Your task to perform on an android device: stop showing notifications on the lock screen Image 0: 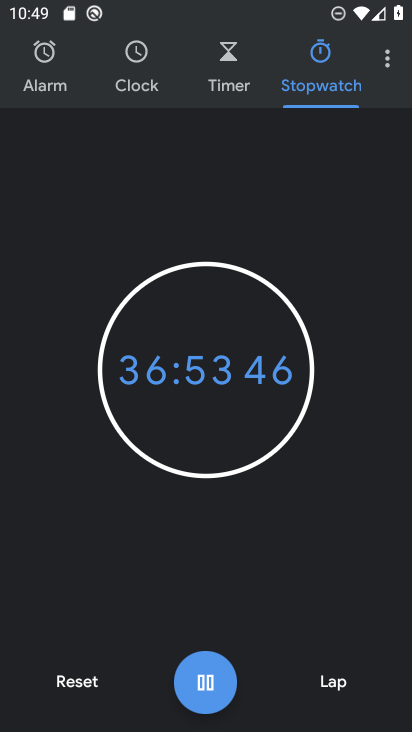
Step 0: press home button
Your task to perform on an android device: stop showing notifications on the lock screen Image 1: 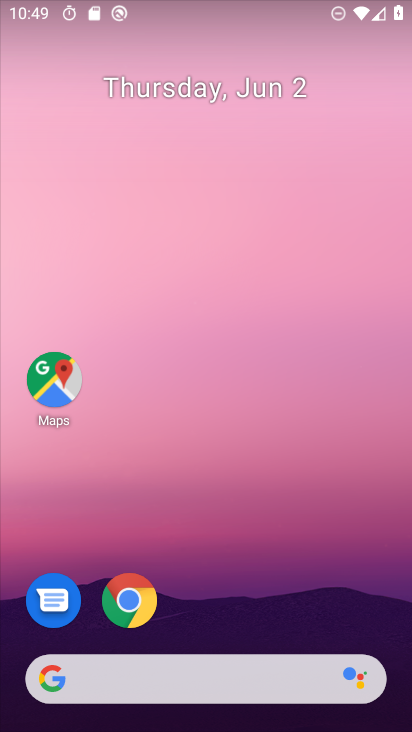
Step 1: drag from (240, 591) to (234, 68)
Your task to perform on an android device: stop showing notifications on the lock screen Image 2: 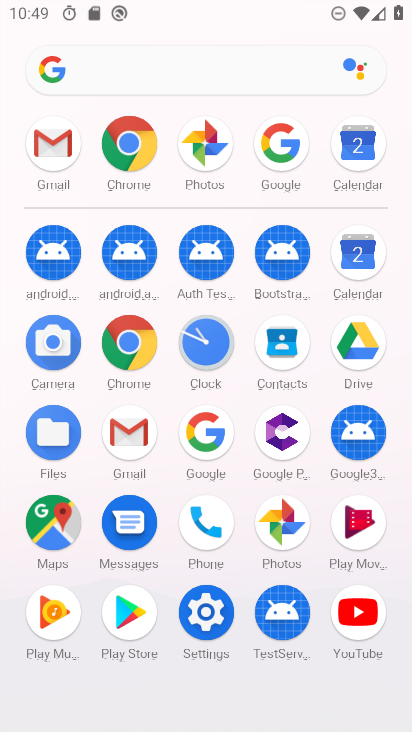
Step 2: click (205, 609)
Your task to perform on an android device: stop showing notifications on the lock screen Image 3: 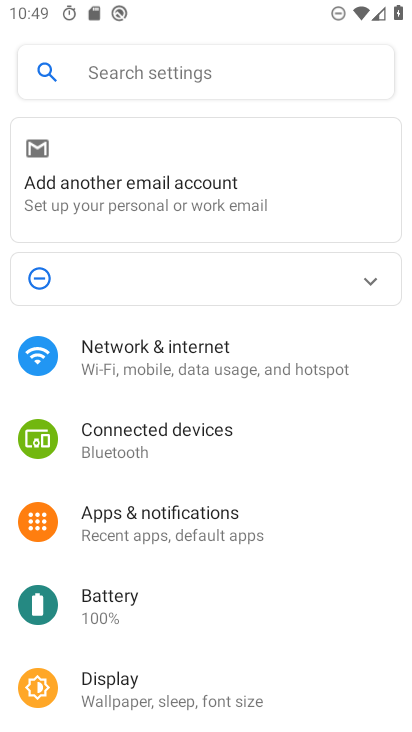
Step 3: click (180, 527)
Your task to perform on an android device: stop showing notifications on the lock screen Image 4: 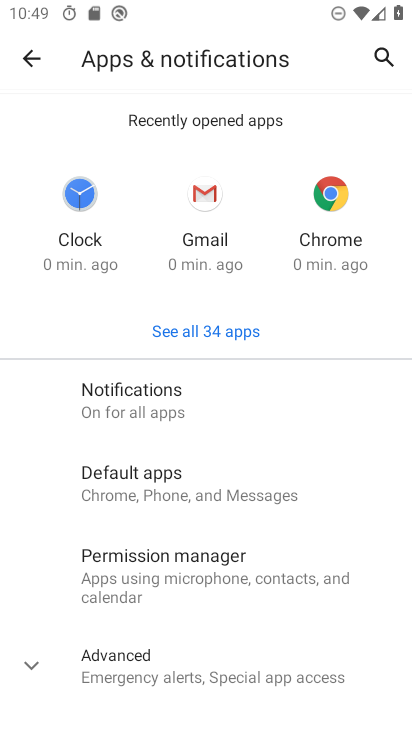
Step 4: click (175, 406)
Your task to perform on an android device: stop showing notifications on the lock screen Image 5: 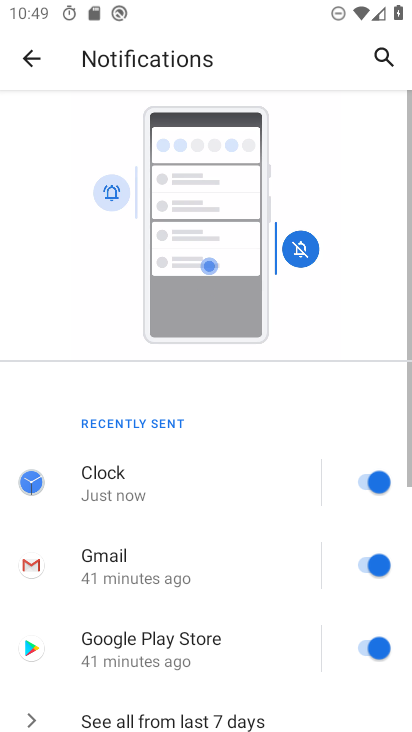
Step 5: drag from (227, 640) to (208, 121)
Your task to perform on an android device: stop showing notifications on the lock screen Image 6: 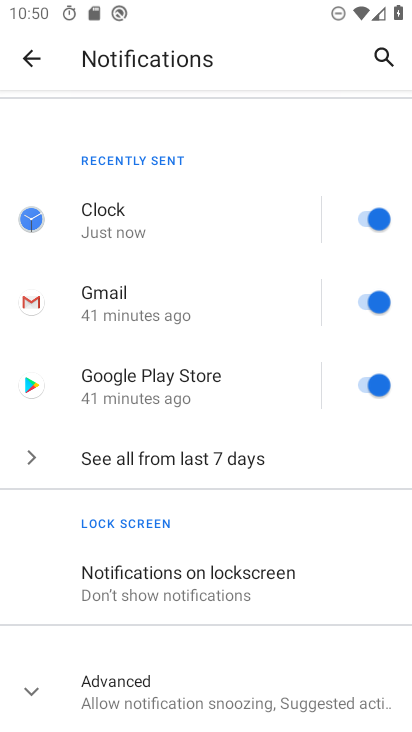
Step 6: click (122, 681)
Your task to perform on an android device: stop showing notifications on the lock screen Image 7: 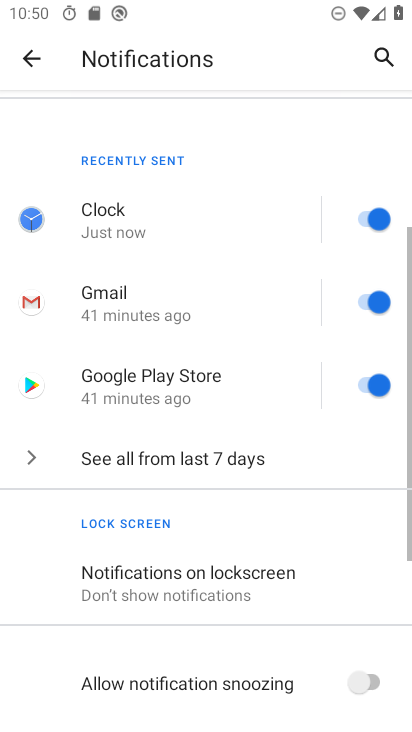
Step 7: click (168, 587)
Your task to perform on an android device: stop showing notifications on the lock screen Image 8: 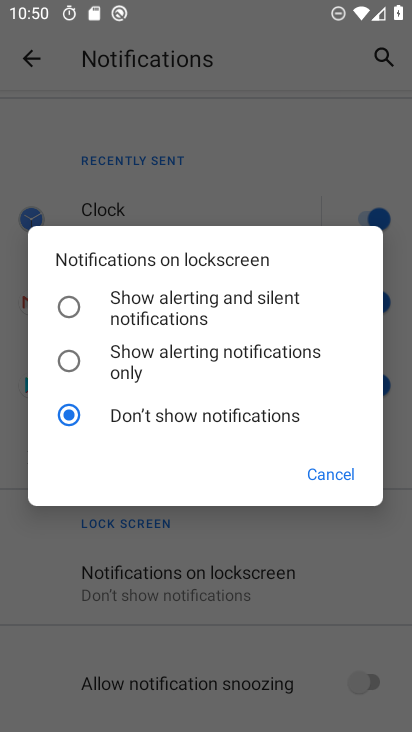
Step 8: task complete